Your task to perform on an android device: check storage Image 0: 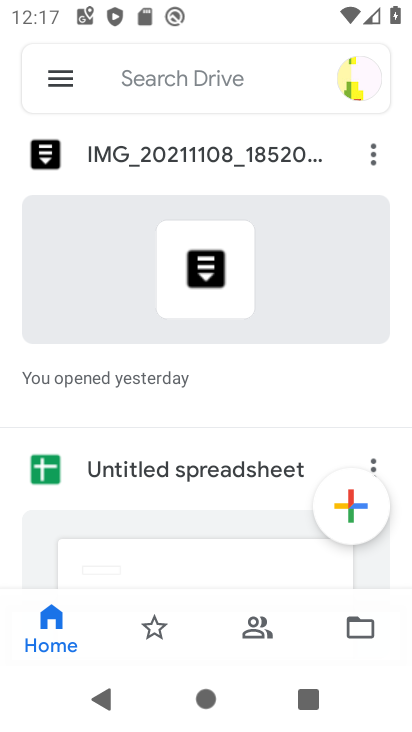
Step 0: press home button
Your task to perform on an android device: check storage Image 1: 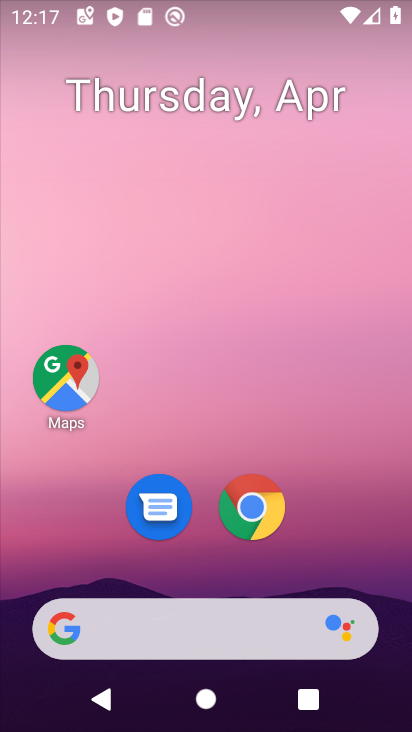
Step 1: drag from (212, 442) to (251, 10)
Your task to perform on an android device: check storage Image 2: 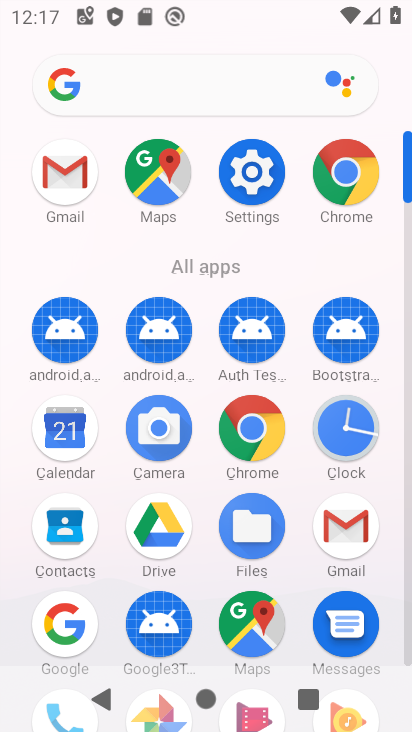
Step 2: click (251, 170)
Your task to perform on an android device: check storage Image 3: 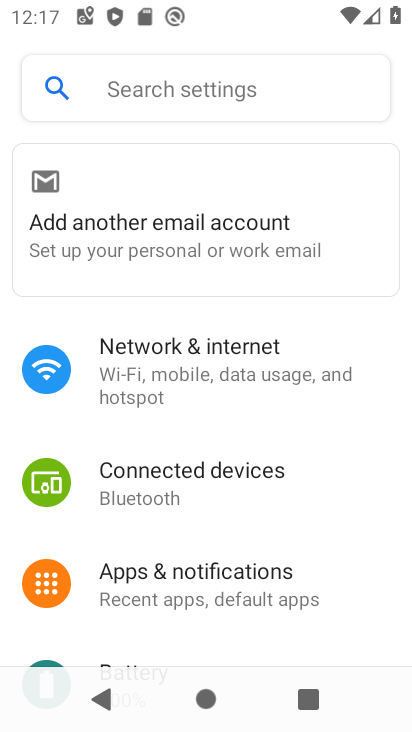
Step 3: drag from (213, 421) to (266, 284)
Your task to perform on an android device: check storage Image 4: 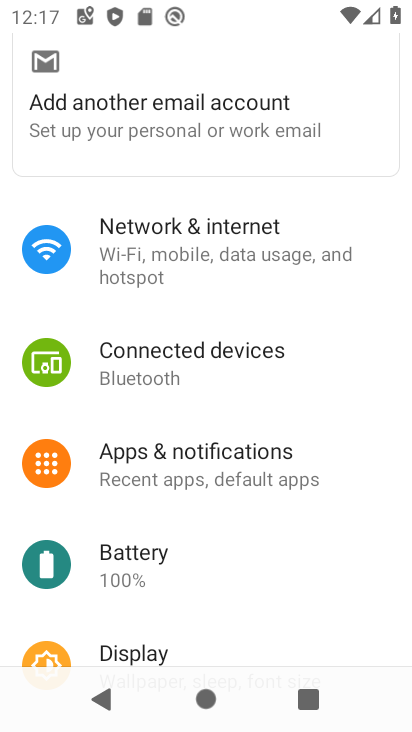
Step 4: drag from (223, 415) to (274, 327)
Your task to perform on an android device: check storage Image 5: 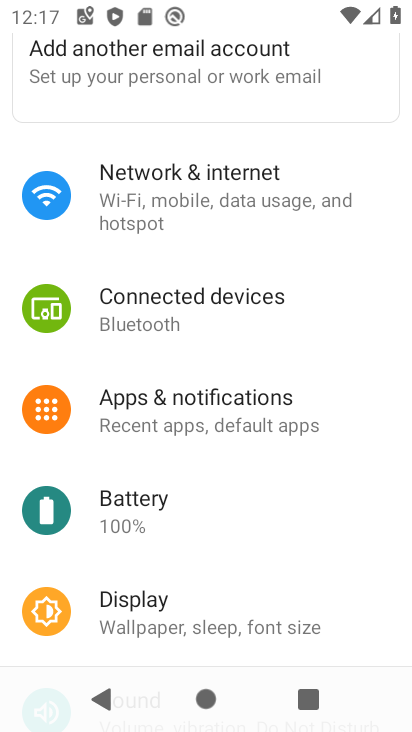
Step 5: drag from (225, 503) to (268, 391)
Your task to perform on an android device: check storage Image 6: 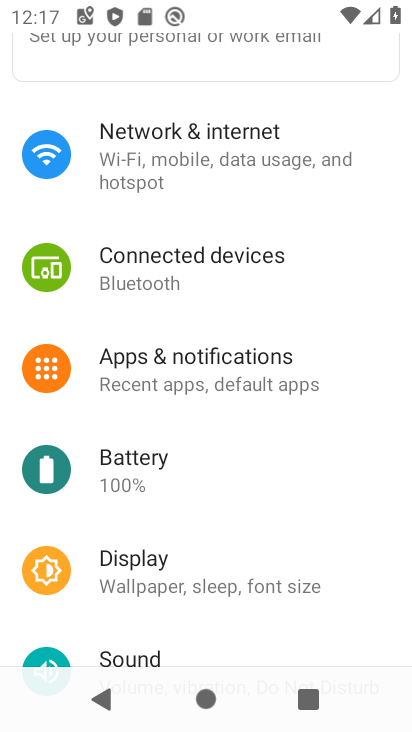
Step 6: drag from (218, 504) to (288, 379)
Your task to perform on an android device: check storage Image 7: 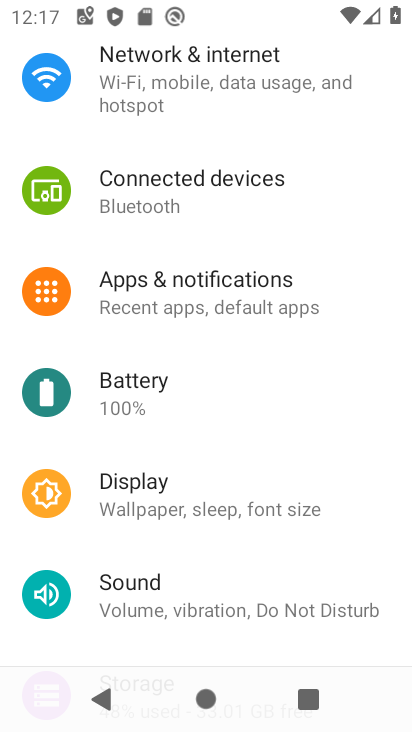
Step 7: drag from (198, 565) to (284, 409)
Your task to perform on an android device: check storage Image 8: 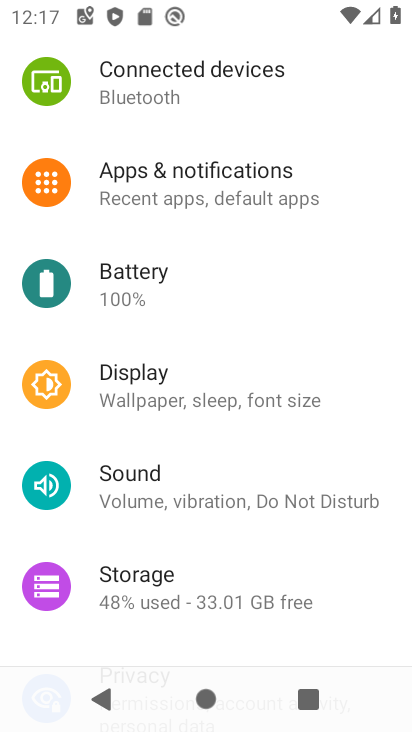
Step 8: drag from (216, 556) to (309, 405)
Your task to perform on an android device: check storage Image 9: 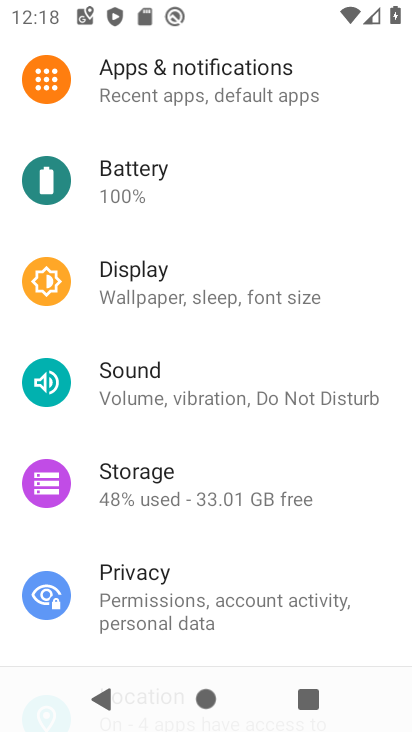
Step 9: click (153, 480)
Your task to perform on an android device: check storage Image 10: 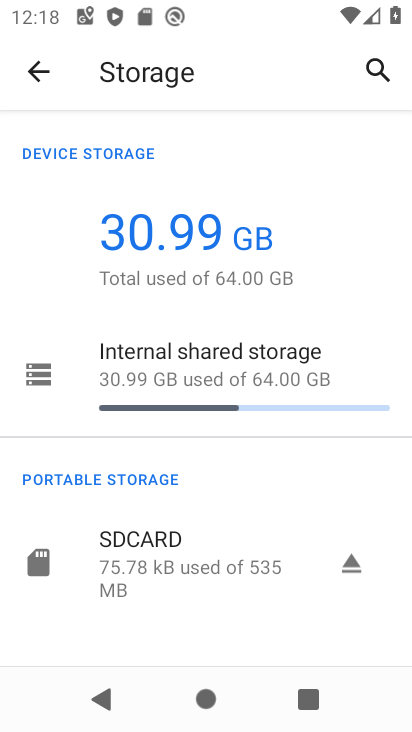
Step 10: task complete